Your task to perform on an android device: What's the weather? Image 0: 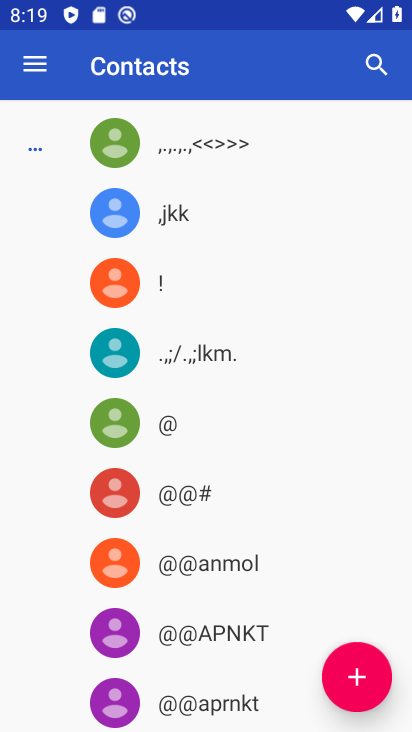
Step 0: press home button
Your task to perform on an android device: What's the weather? Image 1: 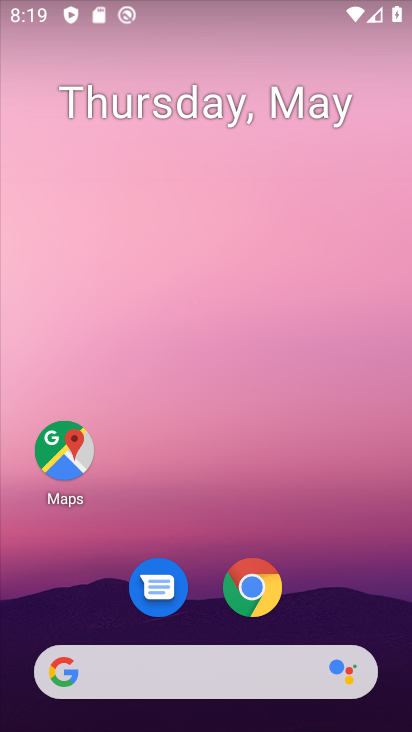
Step 1: click (154, 678)
Your task to perform on an android device: What's the weather? Image 2: 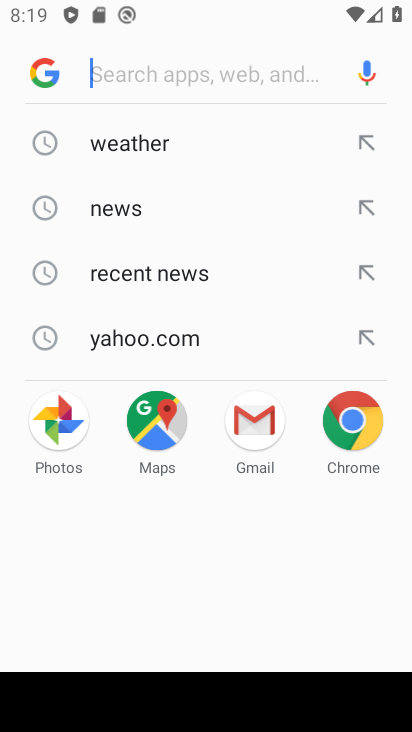
Step 2: click (154, 147)
Your task to perform on an android device: What's the weather? Image 3: 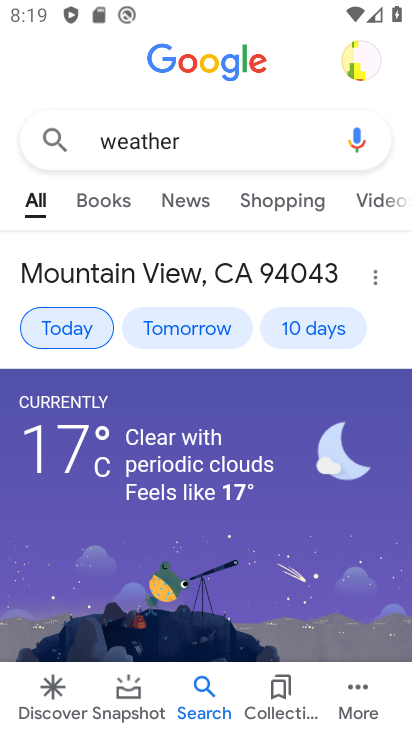
Step 3: task complete